Your task to perform on an android device: turn on translation in the chrome app Image 0: 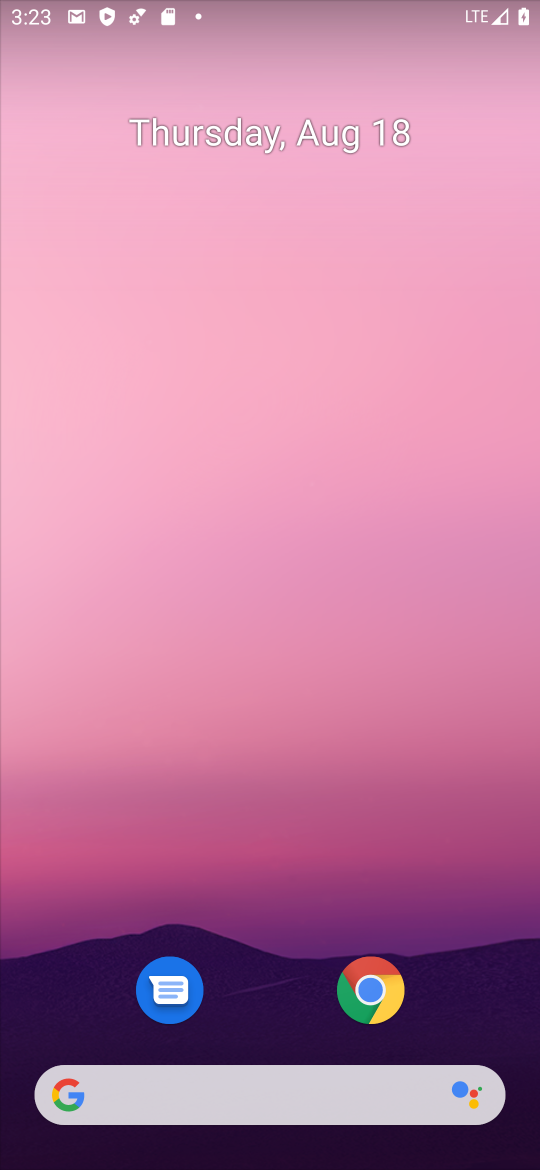
Step 0: drag from (309, 967) to (315, 76)
Your task to perform on an android device: turn on translation in the chrome app Image 1: 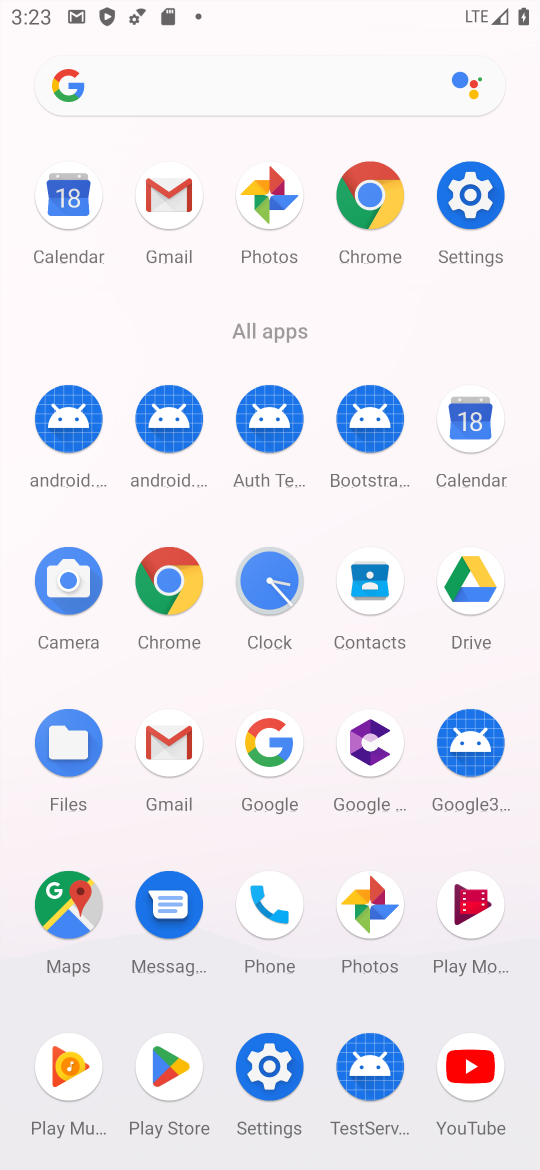
Step 1: click (152, 590)
Your task to perform on an android device: turn on translation in the chrome app Image 2: 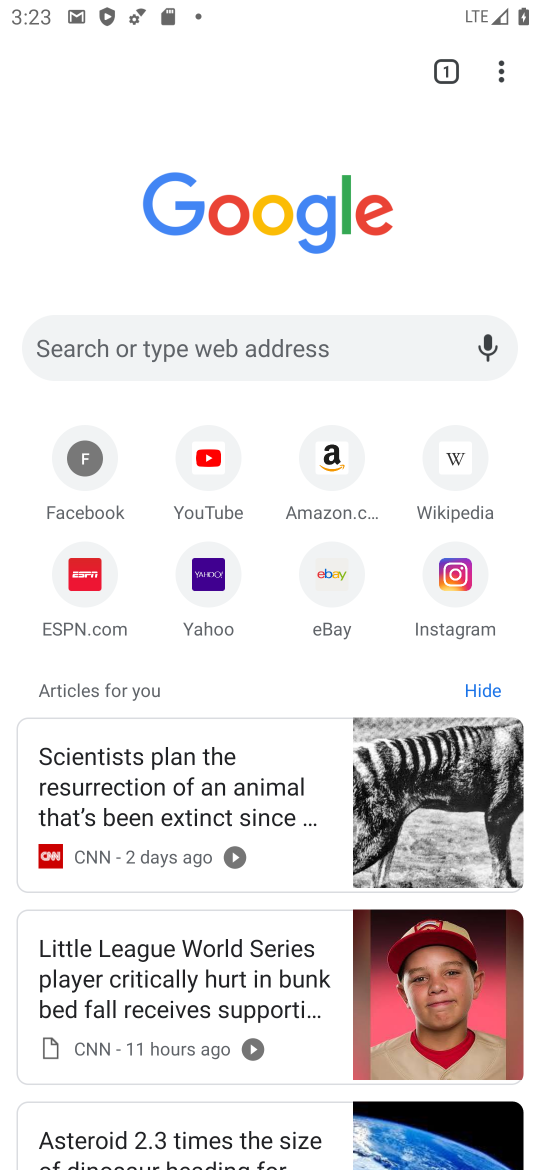
Step 2: drag from (504, 64) to (285, 609)
Your task to perform on an android device: turn on translation in the chrome app Image 3: 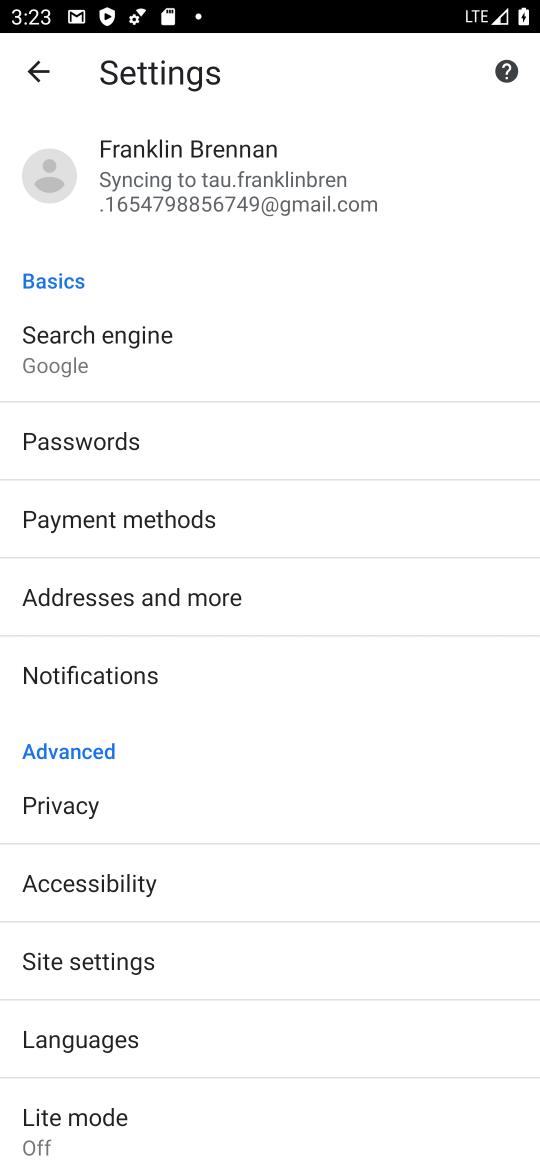
Step 3: drag from (294, 925) to (320, 432)
Your task to perform on an android device: turn on translation in the chrome app Image 4: 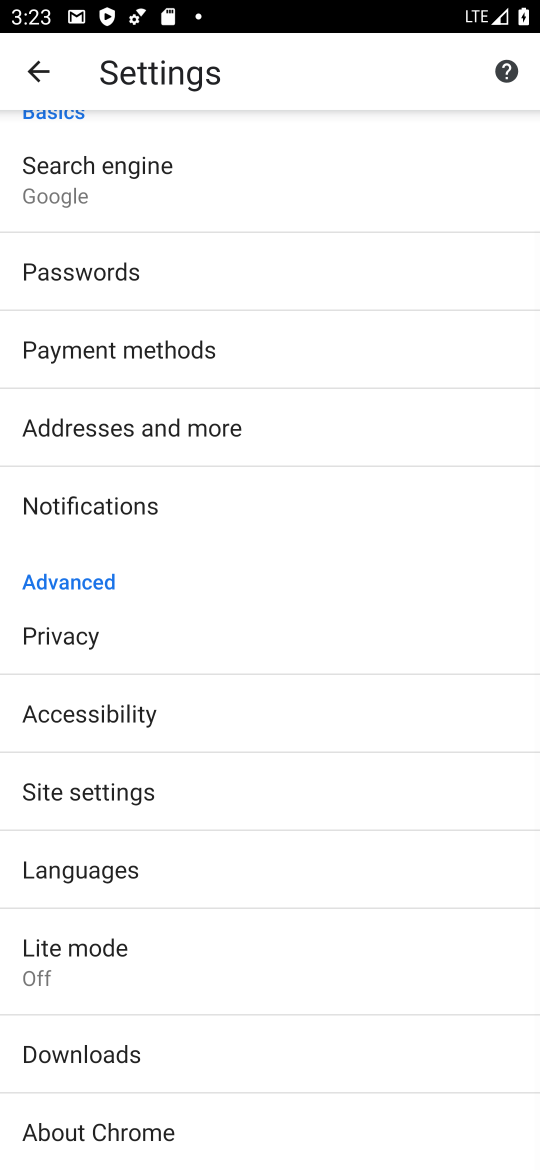
Step 4: click (119, 876)
Your task to perform on an android device: turn on translation in the chrome app Image 5: 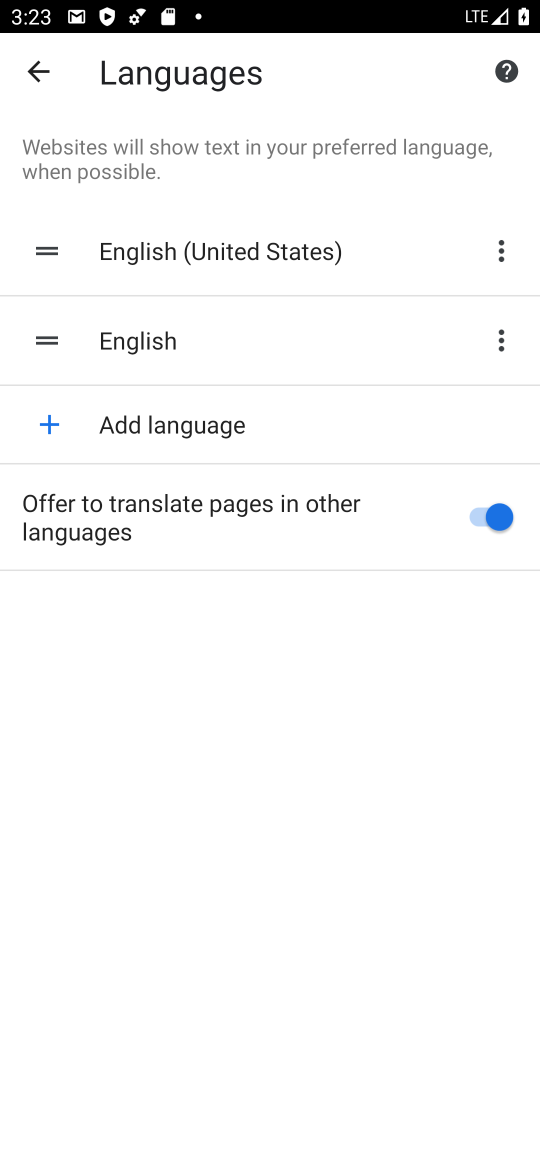
Step 5: task complete